Your task to perform on an android device: toggle priority inbox in the gmail app Image 0: 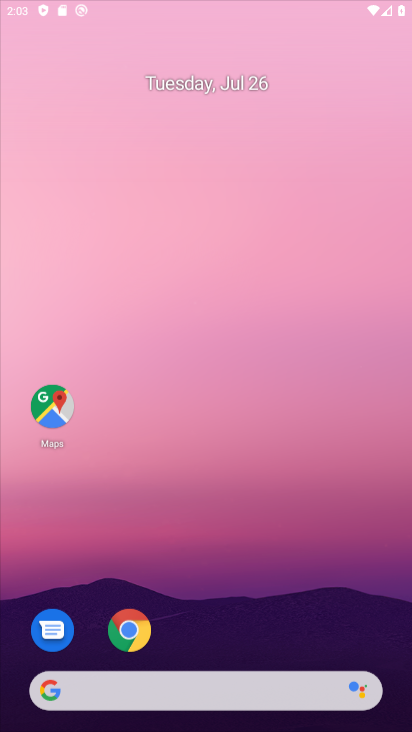
Step 0: press back button
Your task to perform on an android device: toggle priority inbox in the gmail app Image 1: 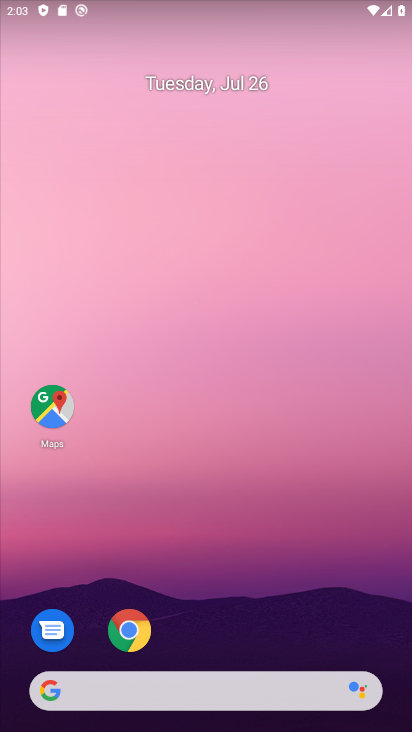
Step 1: drag from (225, 630) to (100, 17)
Your task to perform on an android device: toggle priority inbox in the gmail app Image 2: 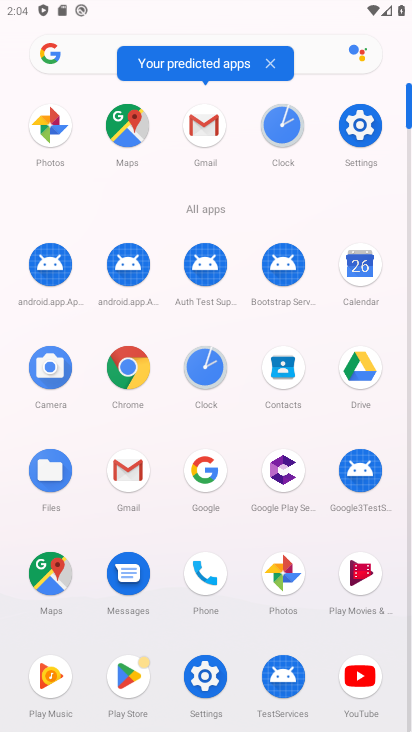
Step 2: click (140, 467)
Your task to perform on an android device: toggle priority inbox in the gmail app Image 3: 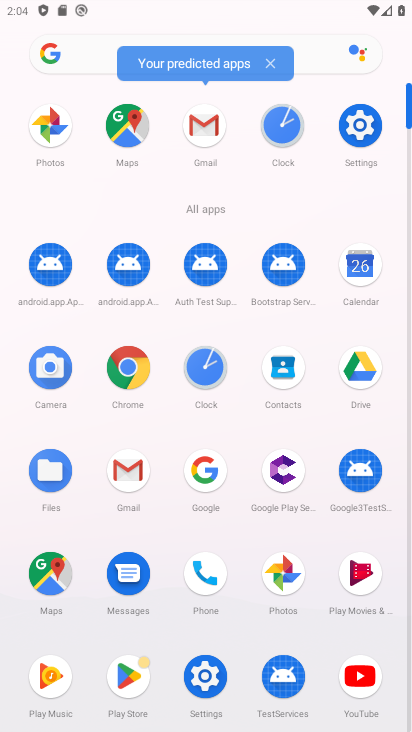
Step 3: click (142, 468)
Your task to perform on an android device: toggle priority inbox in the gmail app Image 4: 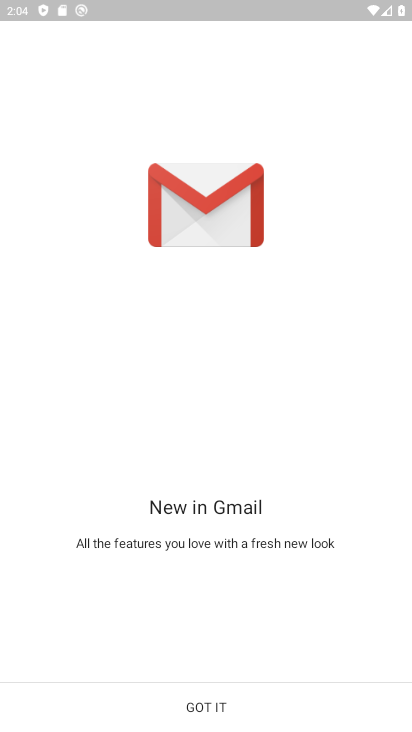
Step 4: click (248, 711)
Your task to perform on an android device: toggle priority inbox in the gmail app Image 5: 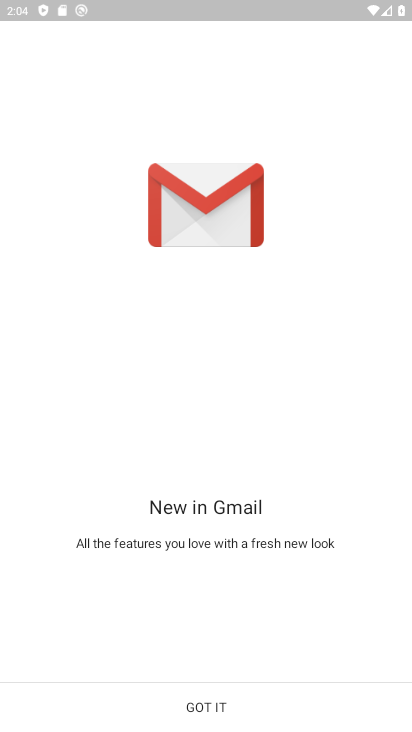
Step 5: click (248, 711)
Your task to perform on an android device: toggle priority inbox in the gmail app Image 6: 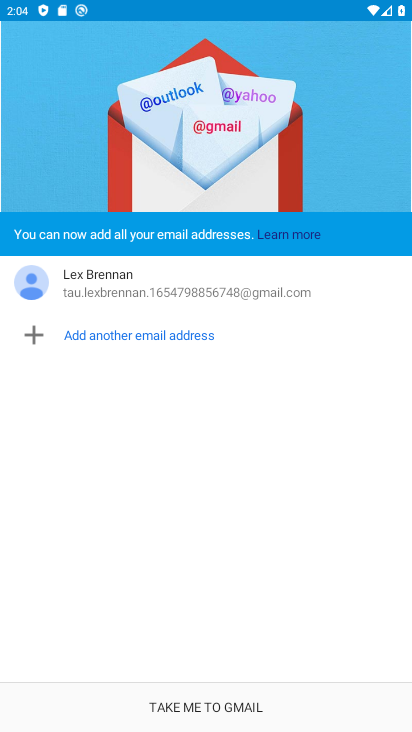
Step 6: click (223, 708)
Your task to perform on an android device: toggle priority inbox in the gmail app Image 7: 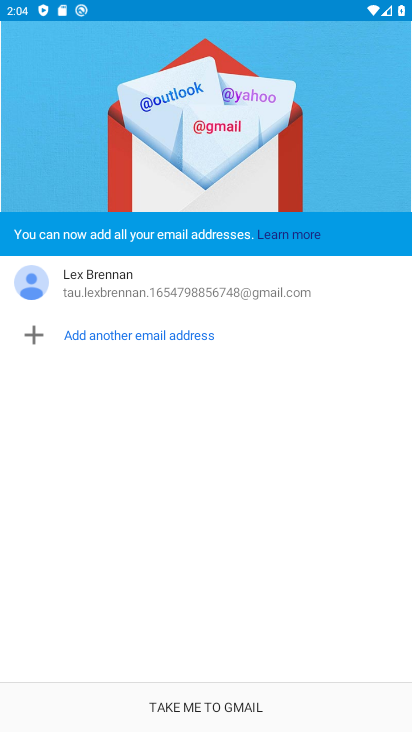
Step 7: click (223, 708)
Your task to perform on an android device: toggle priority inbox in the gmail app Image 8: 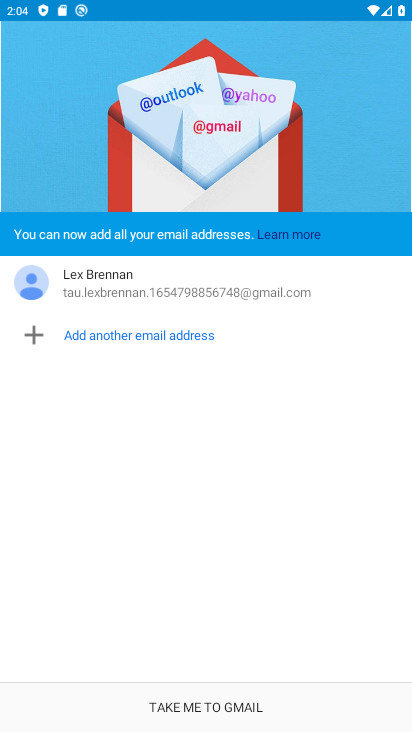
Step 8: click (226, 705)
Your task to perform on an android device: toggle priority inbox in the gmail app Image 9: 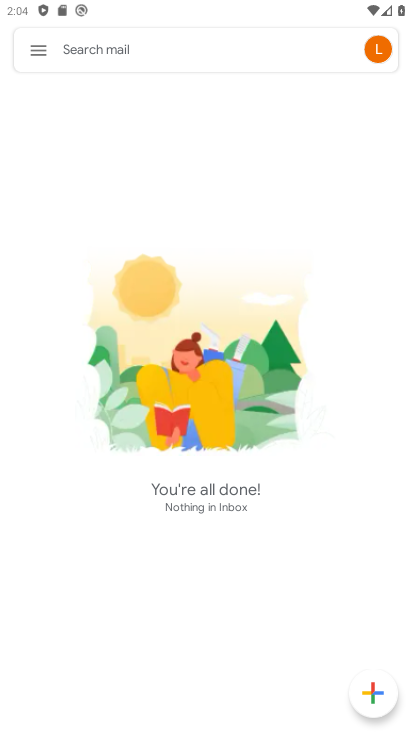
Step 9: click (49, 48)
Your task to perform on an android device: toggle priority inbox in the gmail app Image 10: 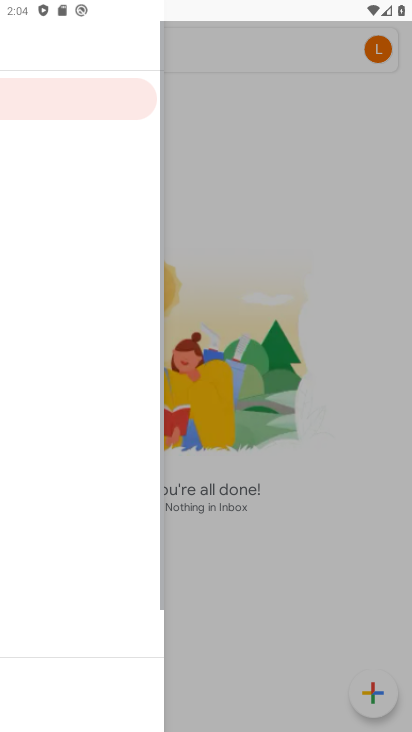
Step 10: click (49, 48)
Your task to perform on an android device: toggle priority inbox in the gmail app Image 11: 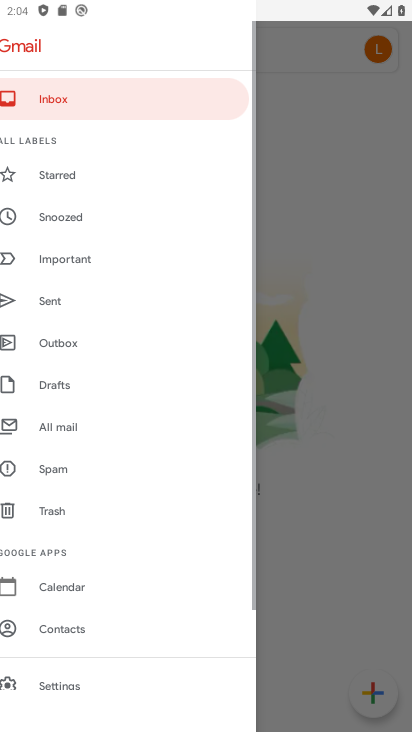
Step 11: click (49, 48)
Your task to perform on an android device: toggle priority inbox in the gmail app Image 12: 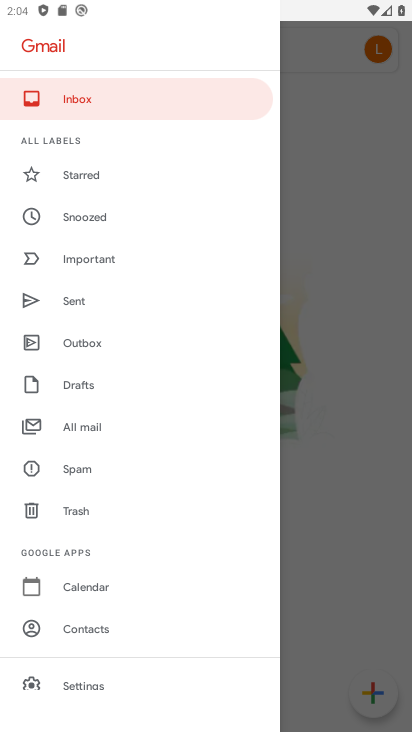
Step 12: drag from (83, 646) to (34, 280)
Your task to perform on an android device: toggle priority inbox in the gmail app Image 13: 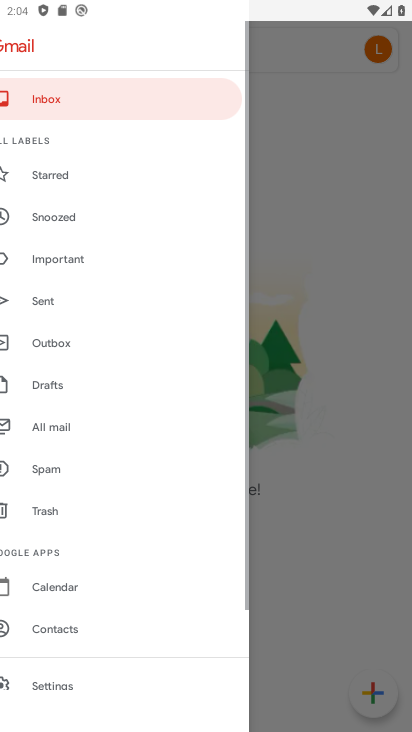
Step 13: drag from (154, 631) to (125, 363)
Your task to perform on an android device: toggle priority inbox in the gmail app Image 14: 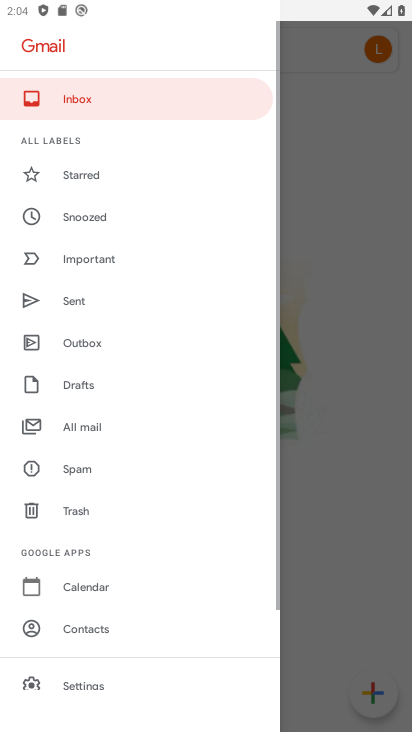
Step 14: drag from (92, 630) to (60, 283)
Your task to perform on an android device: toggle priority inbox in the gmail app Image 15: 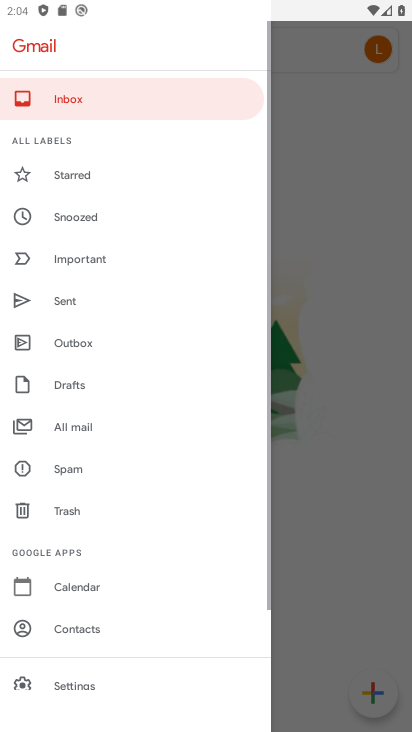
Step 15: drag from (92, 342) to (81, 295)
Your task to perform on an android device: toggle priority inbox in the gmail app Image 16: 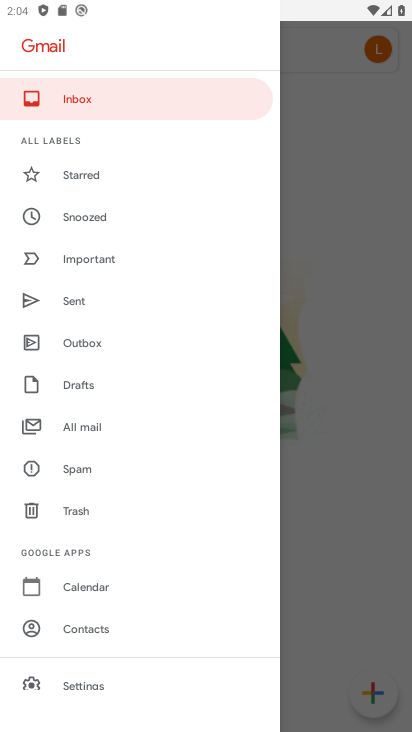
Step 16: drag from (69, 484) to (44, 277)
Your task to perform on an android device: toggle priority inbox in the gmail app Image 17: 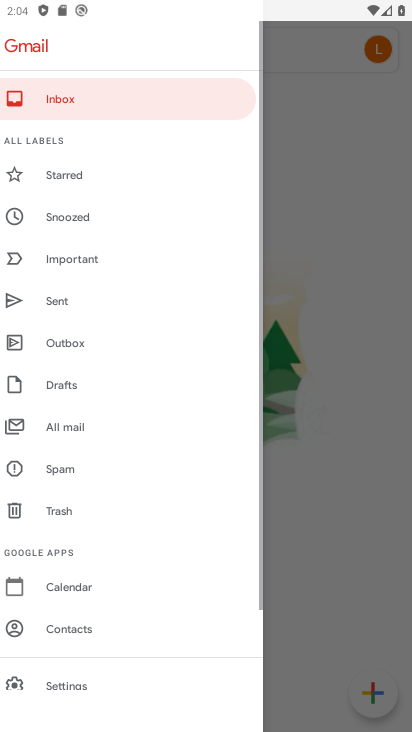
Step 17: drag from (112, 613) to (82, 373)
Your task to perform on an android device: toggle priority inbox in the gmail app Image 18: 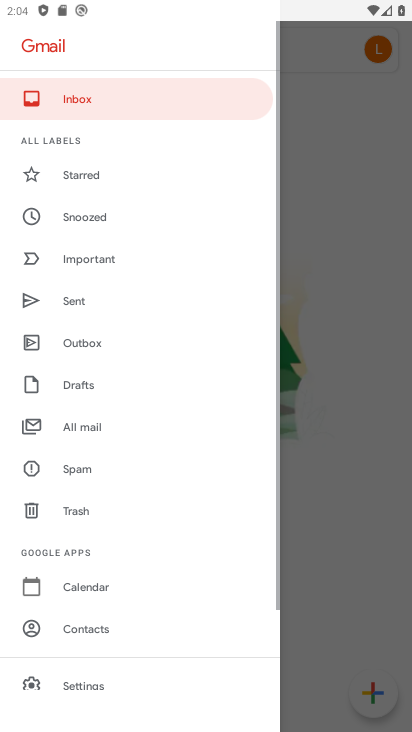
Step 18: click (79, 689)
Your task to perform on an android device: toggle priority inbox in the gmail app Image 19: 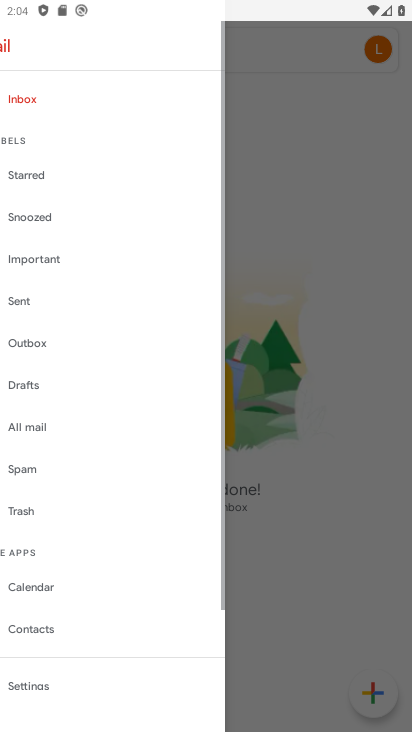
Step 19: click (77, 688)
Your task to perform on an android device: toggle priority inbox in the gmail app Image 20: 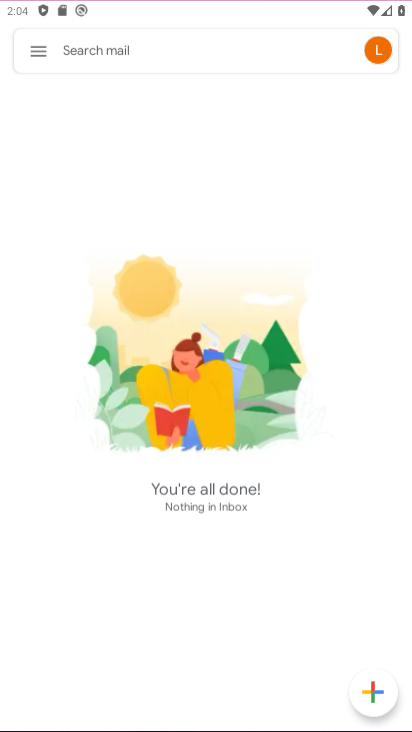
Step 20: click (80, 684)
Your task to perform on an android device: toggle priority inbox in the gmail app Image 21: 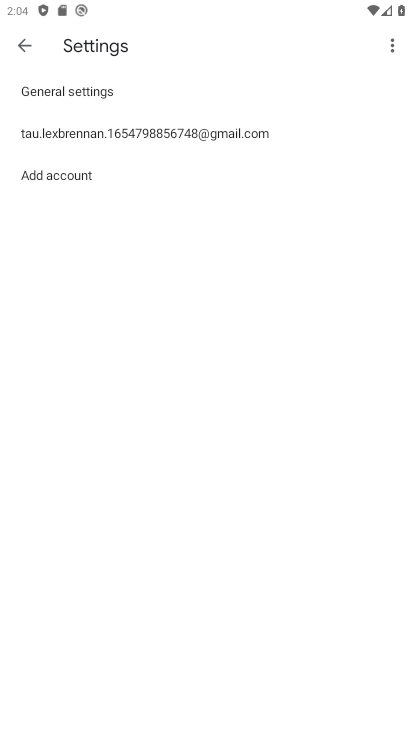
Step 21: click (108, 147)
Your task to perform on an android device: toggle priority inbox in the gmail app Image 22: 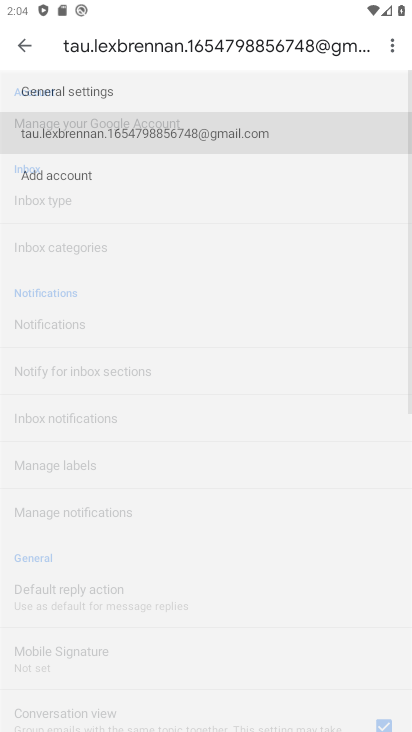
Step 22: click (114, 138)
Your task to perform on an android device: toggle priority inbox in the gmail app Image 23: 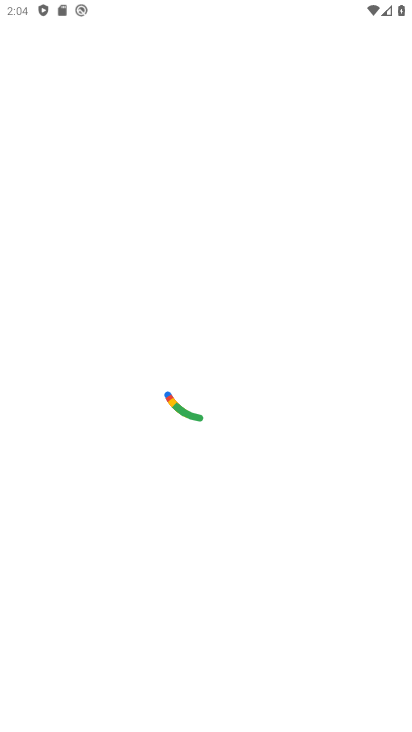
Step 23: press back button
Your task to perform on an android device: toggle priority inbox in the gmail app Image 24: 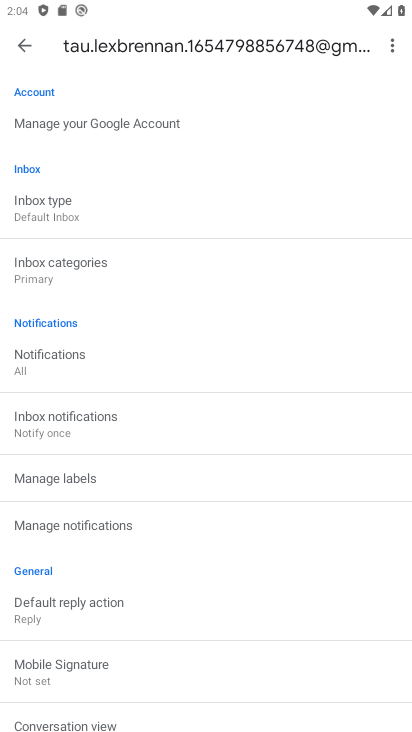
Step 24: click (41, 218)
Your task to perform on an android device: toggle priority inbox in the gmail app Image 25: 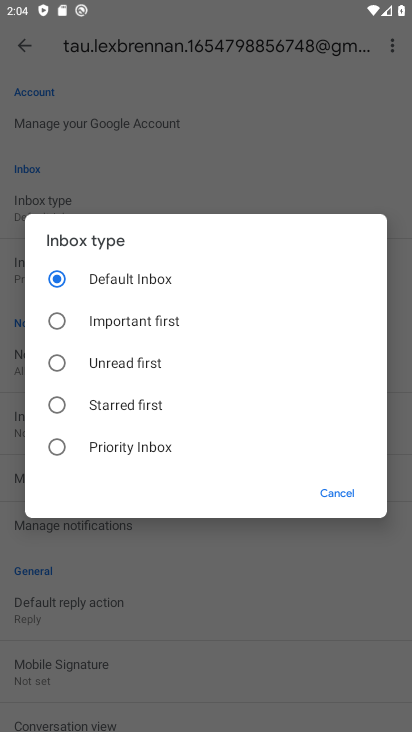
Step 25: click (54, 444)
Your task to perform on an android device: toggle priority inbox in the gmail app Image 26: 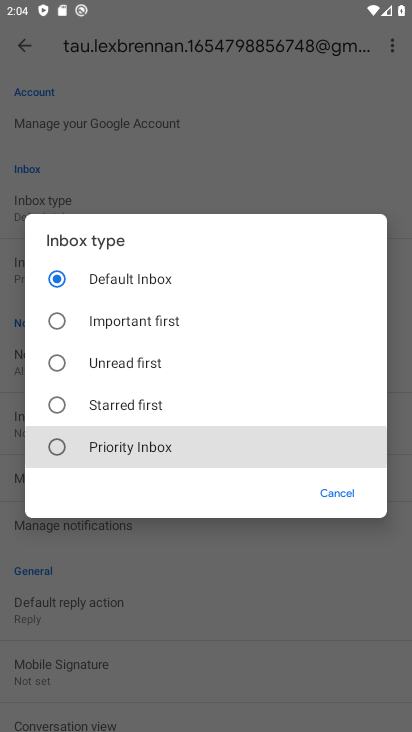
Step 26: click (53, 459)
Your task to perform on an android device: toggle priority inbox in the gmail app Image 27: 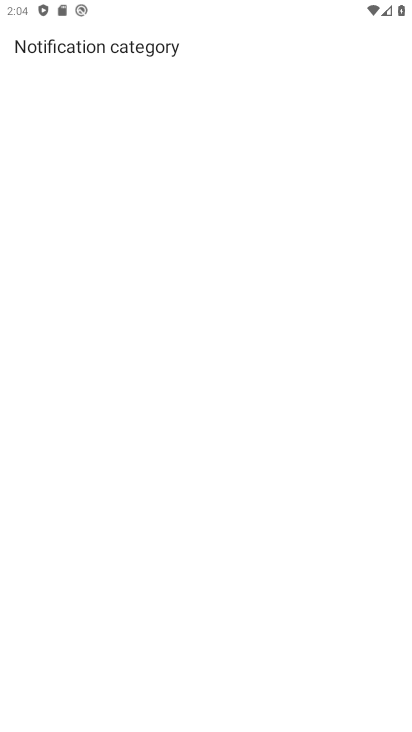
Step 27: task complete